Your task to perform on an android device: Go to eBay Image 0: 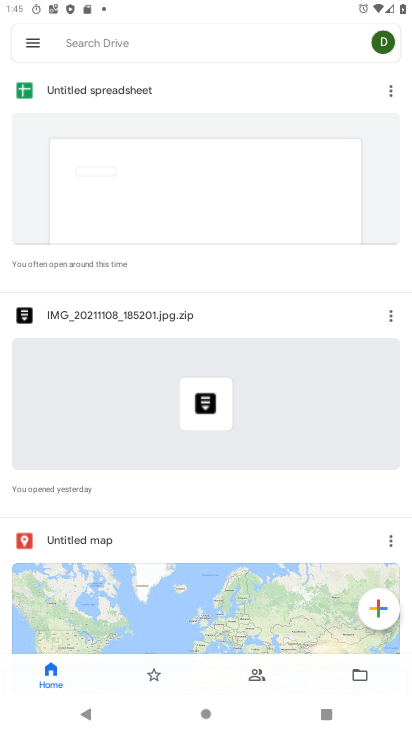
Step 0: press home button
Your task to perform on an android device: Go to eBay Image 1: 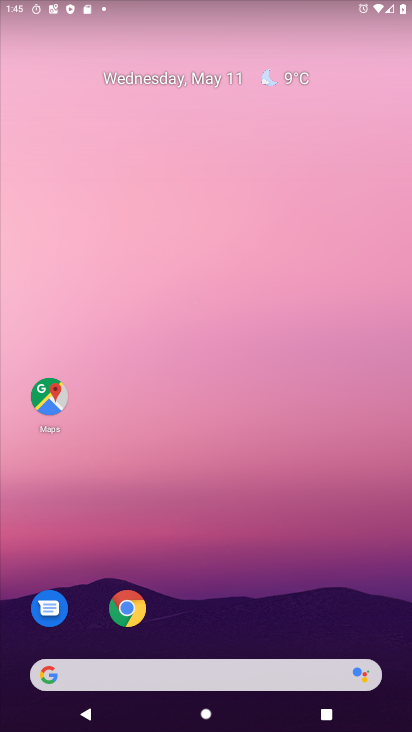
Step 1: click (136, 619)
Your task to perform on an android device: Go to eBay Image 2: 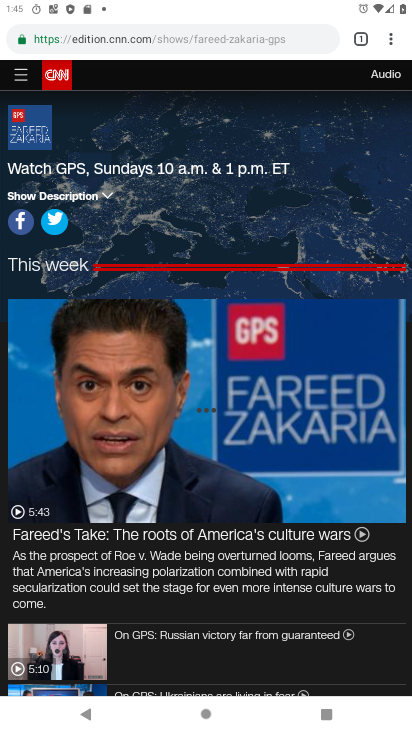
Step 2: click (195, 48)
Your task to perform on an android device: Go to eBay Image 3: 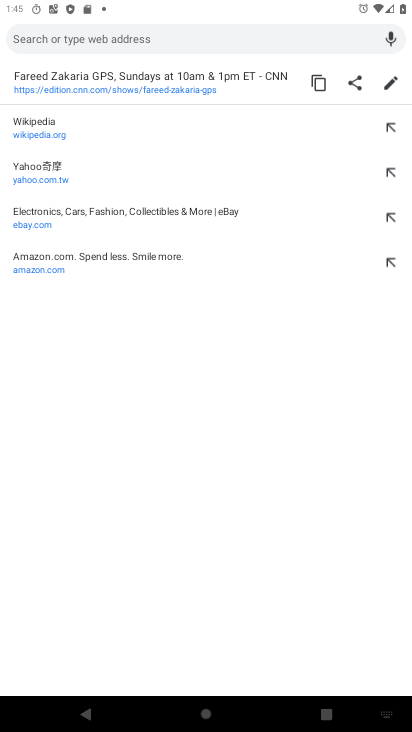
Step 3: click (253, 209)
Your task to perform on an android device: Go to eBay Image 4: 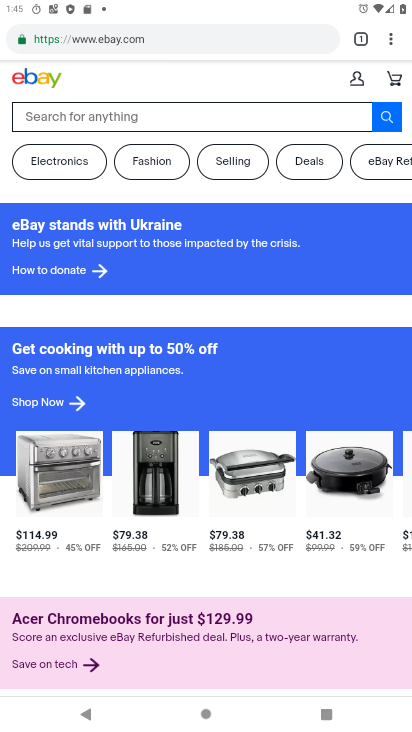
Step 4: task complete